Your task to perform on an android device: Open ESPN.com Image 0: 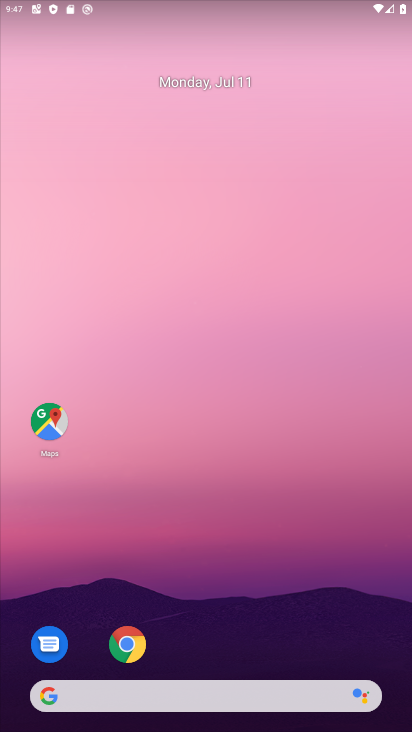
Step 0: drag from (204, 640) to (208, 145)
Your task to perform on an android device: Open ESPN.com Image 1: 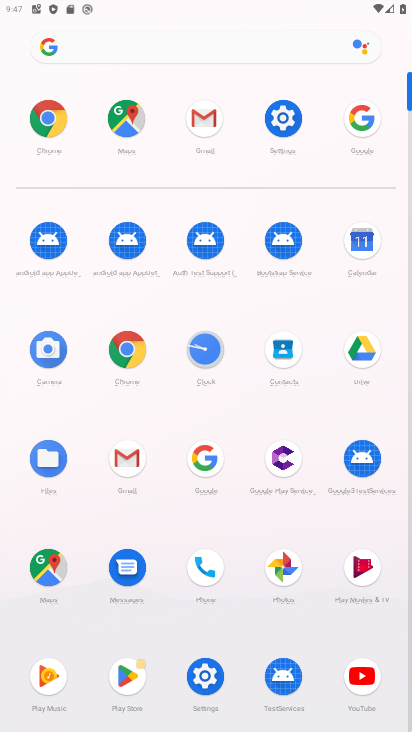
Step 1: click (210, 455)
Your task to perform on an android device: Open ESPN.com Image 2: 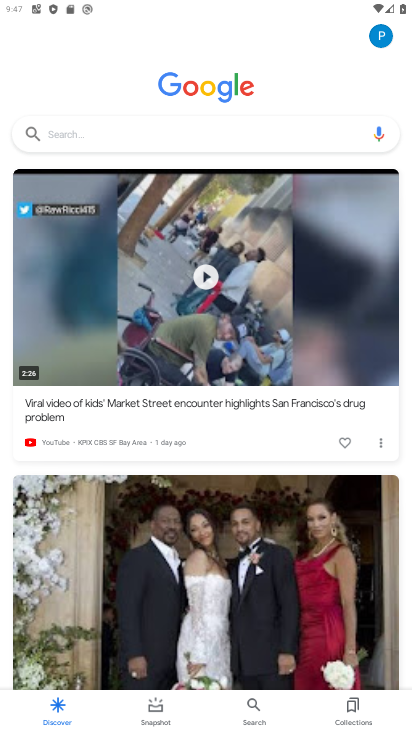
Step 2: click (154, 133)
Your task to perform on an android device: Open ESPN.com Image 3: 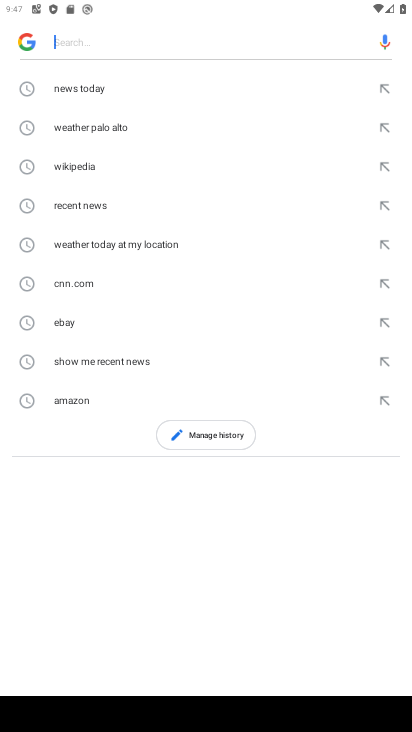
Step 3: type "espn.com"
Your task to perform on an android device: Open ESPN.com Image 4: 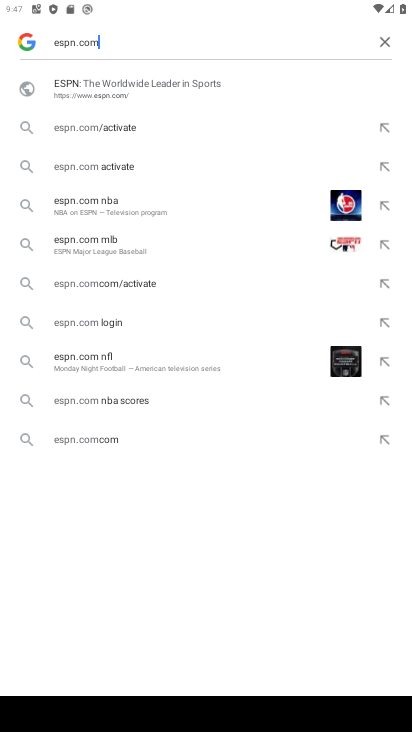
Step 4: click (121, 86)
Your task to perform on an android device: Open ESPN.com Image 5: 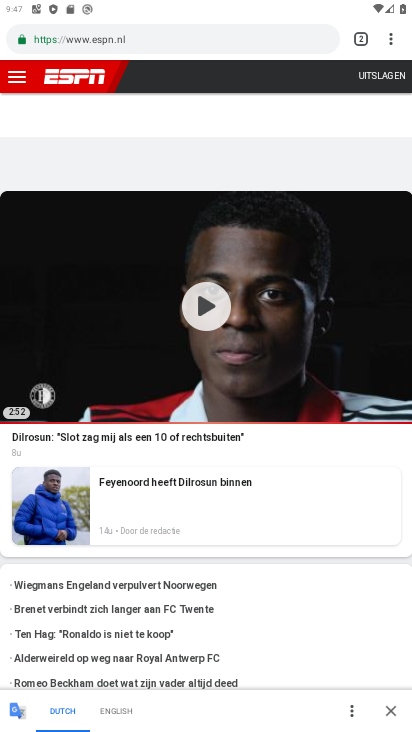
Step 5: task complete